Your task to perform on an android device: check storage Image 0: 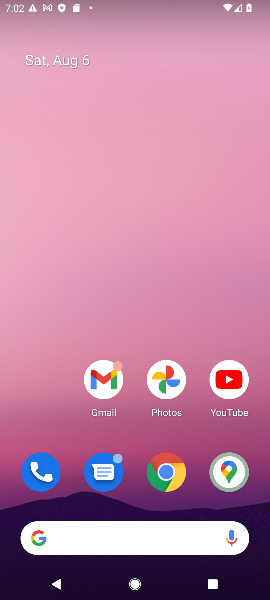
Step 0: drag from (260, 514) to (255, 171)
Your task to perform on an android device: check storage Image 1: 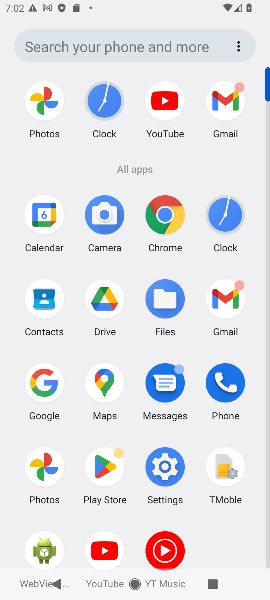
Step 1: click (166, 465)
Your task to perform on an android device: check storage Image 2: 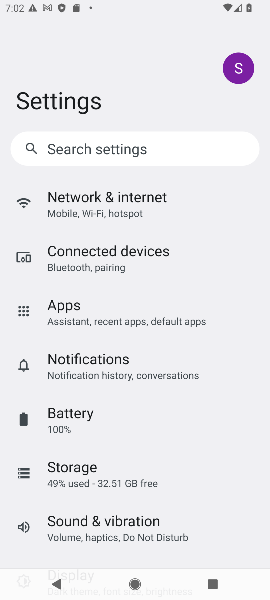
Step 2: click (86, 471)
Your task to perform on an android device: check storage Image 3: 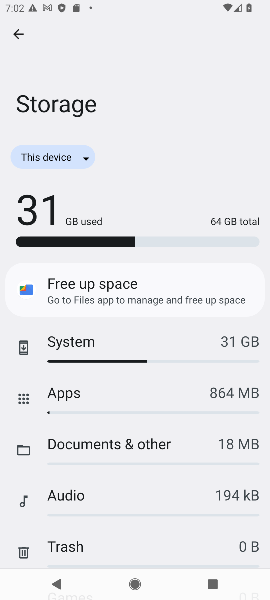
Step 3: task complete